Your task to perform on an android device: Open ESPN.com Image 0: 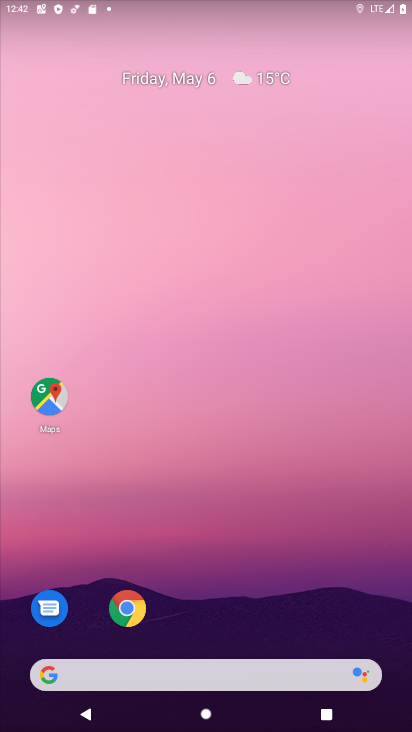
Step 0: click (300, 53)
Your task to perform on an android device: Open ESPN.com Image 1: 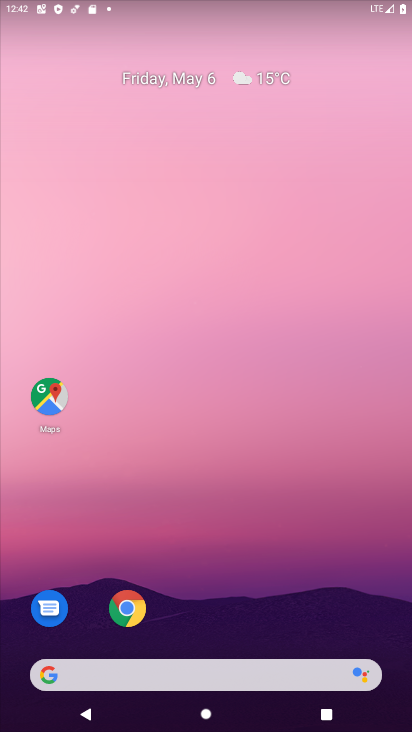
Step 1: drag from (240, 616) to (278, 128)
Your task to perform on an android device: Open ESPN.com Image 2: 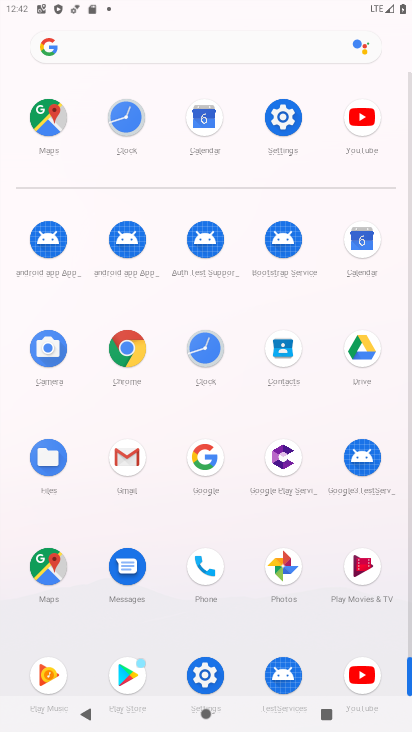
Step 2: click (185, 45)
Your task to perform on an android device: Open ESPN.com Image 3: 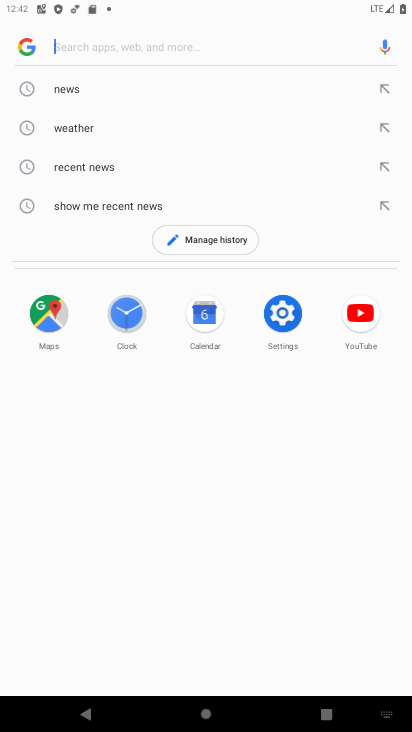
Step 3: type "espn.com"
Your task to perform on an android device: Open ESPN.com Image 4: 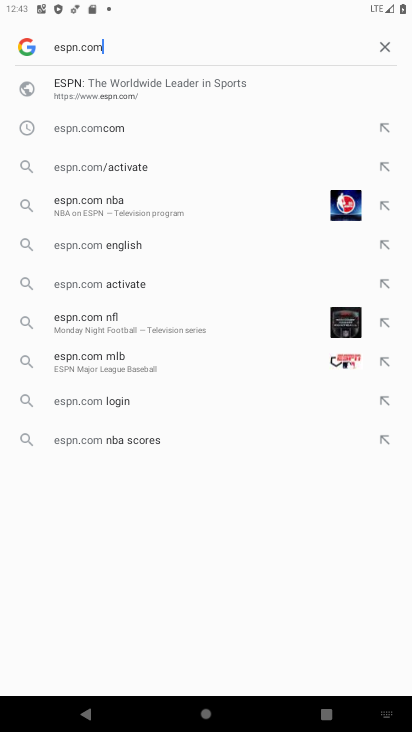
Step 4: click (115, 92)
Your task to perform on an android device: Open ESPN.com Image 5: 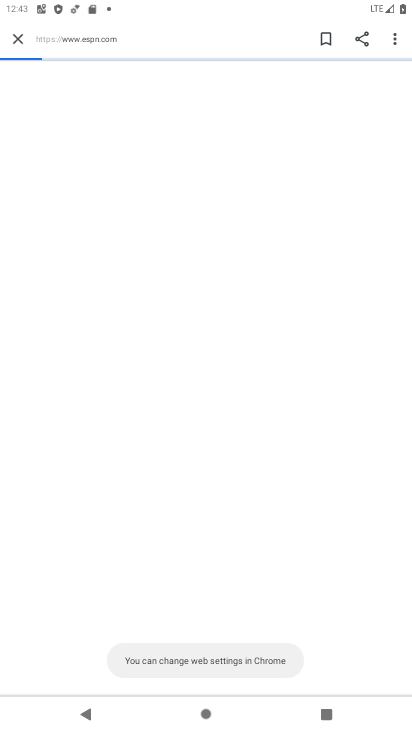
Step 5: task complete